Your task to perform on an android device: change timer sound Image 0: 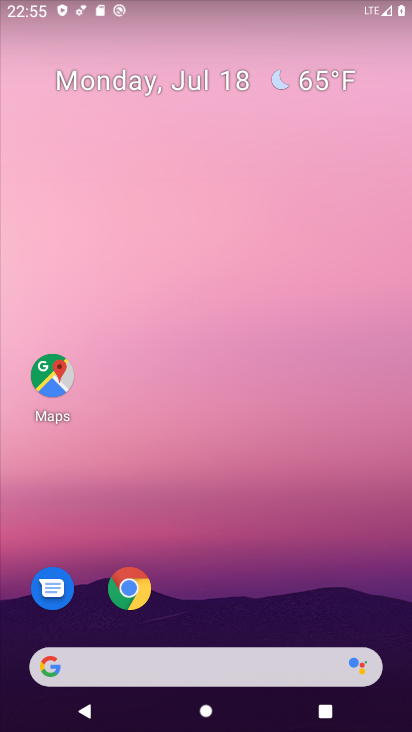
Step 0: press home button
Your task to perform on an android device: change timer sound Image 1: 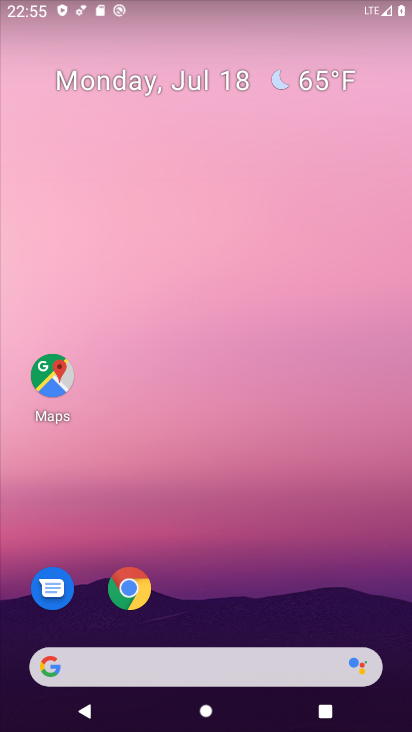
Step 1: drag from (315, 554) to (340, 134)
Your task to perform on an android device: change timer sound Image 2: 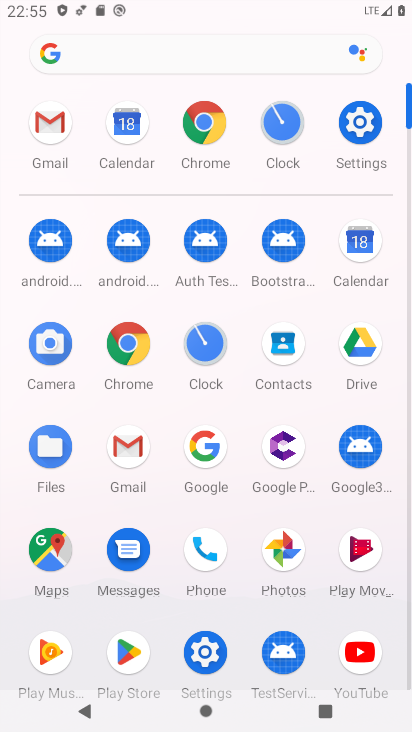
Step 2: click (213, 344)
Your task to perform on an android device: change timer sound Image 3: 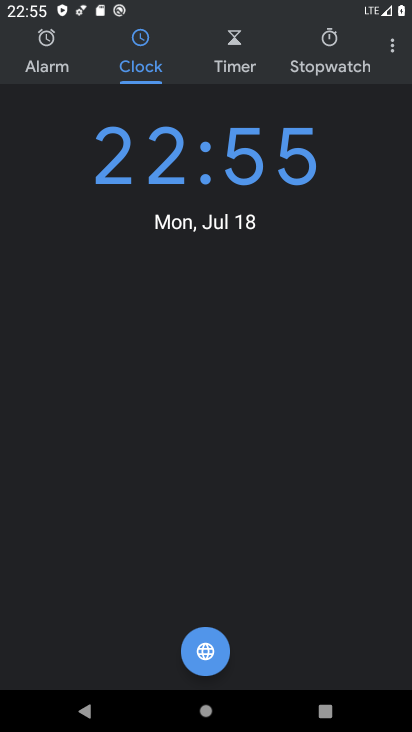
Step 3: click (394, 41)
Your task to perform on an android device: change timer sound Image 4: 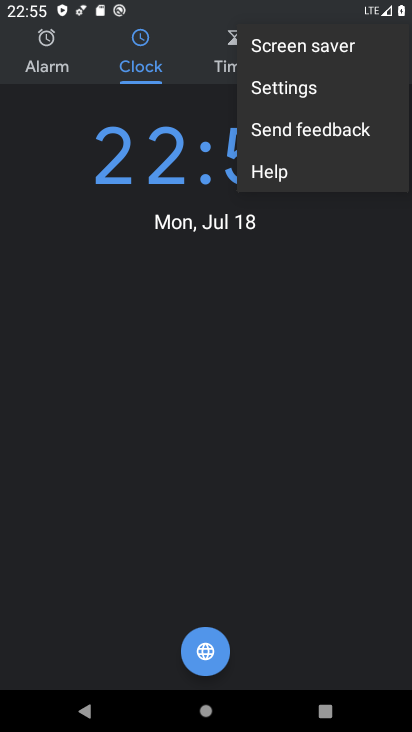
Step 4: click (279, 88)
Your task to perform on an android device: change timer sound Image 5: 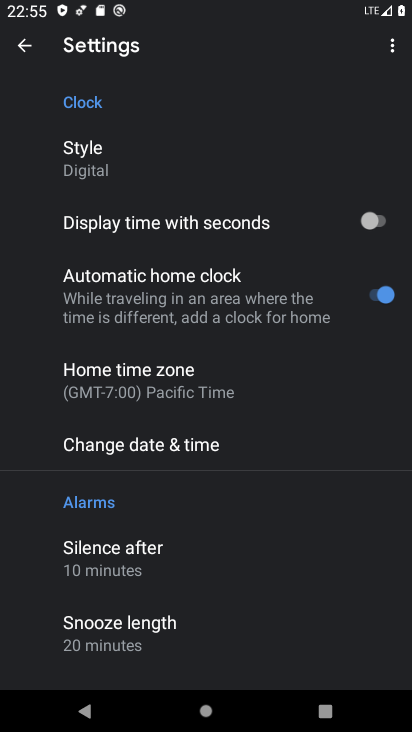
Step 5: drag from (207, 503) to (194, 218)
Your task to perform on an android device: change timer sound Image 6: 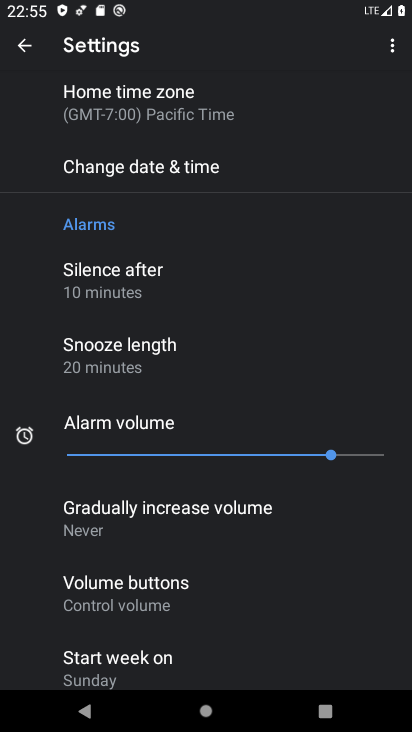
Step 6: drag from (248, 633) to (300, 249)
Your task to perform on an android device: change timer sound Image 7: 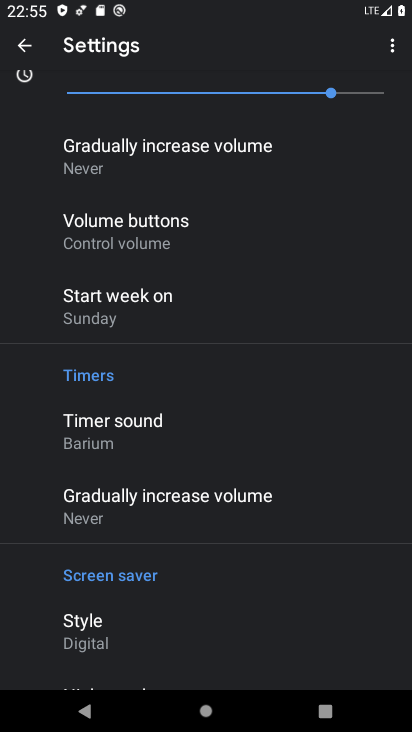
Step 7: drag from (223, 610) to (278, 280)
Your task to perform on an android device: change timer sound Image 8: 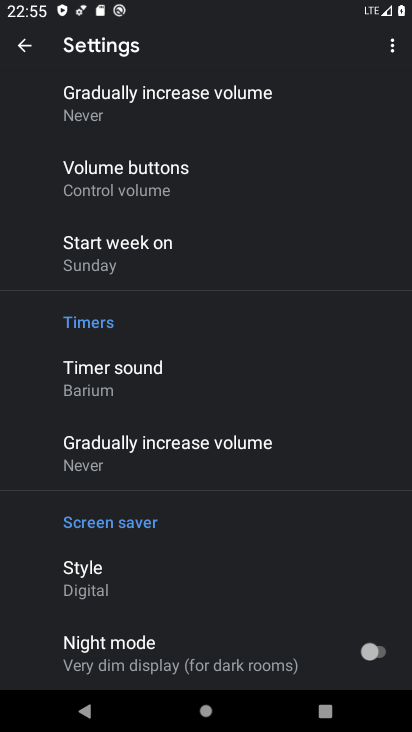
Step 8: drag from (240, 526) to (299, 105)
Your task to perform on an android device: change timer sound Image 9: 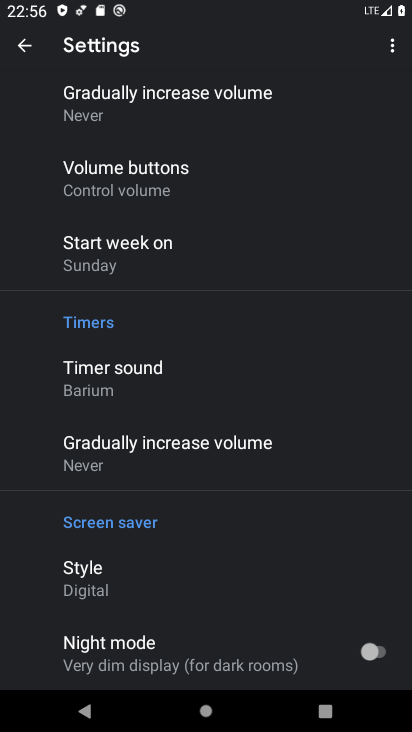
Step 9: drag from (295, 150) to (290, 249)
Your task to perform on an android device: change timer sound Image 10: 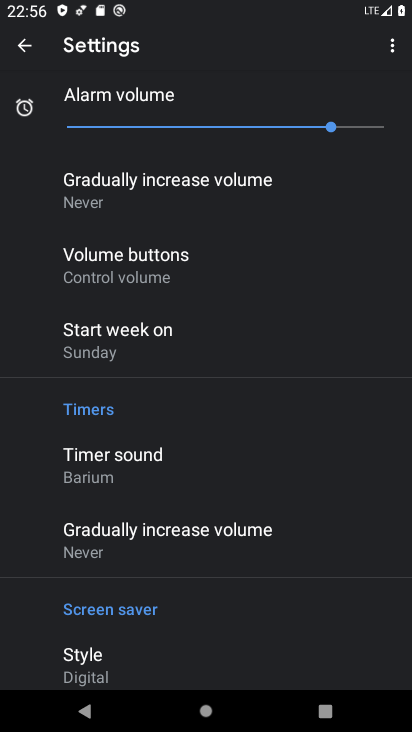
Step 10: click (148, 463)
Your task to perform on an android device: change timer sound Image 11: 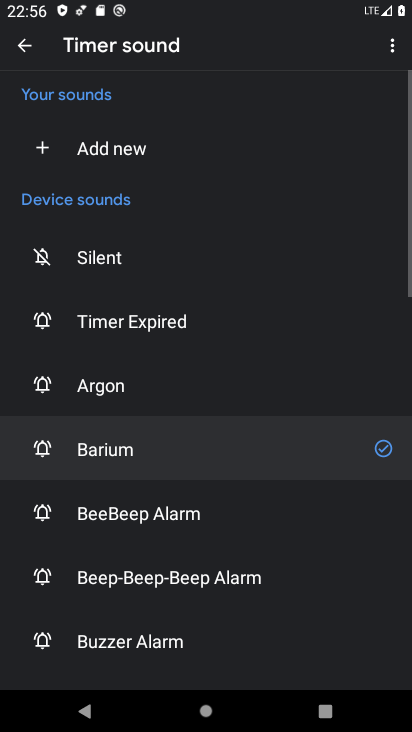
Step 11: click (118, 324)
Your task to perform on an android device: change timer sound Image 12: 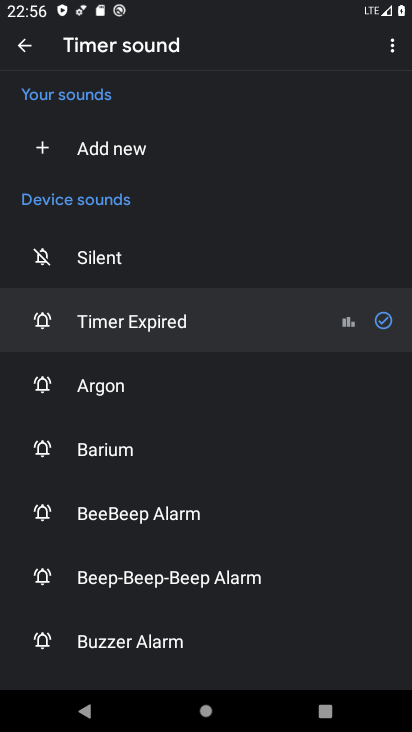
Step 12: task complete